Your task to perform on an android device: toggle notifications settings in the gmail app Image 0: 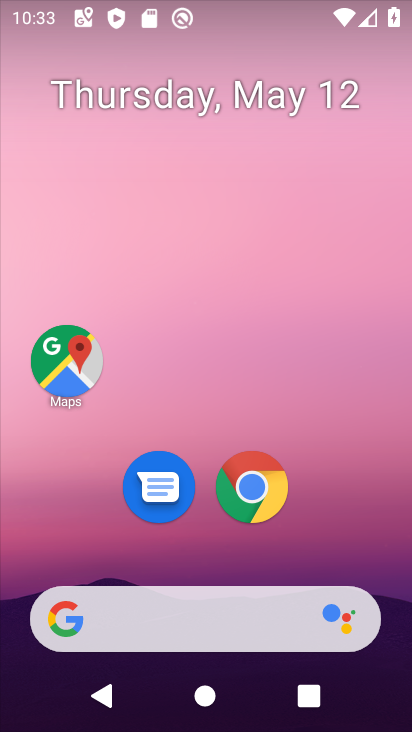
Step 0: press home button
Your task to perform on an android device: toggle notifications settings in the gmail app Image 1: 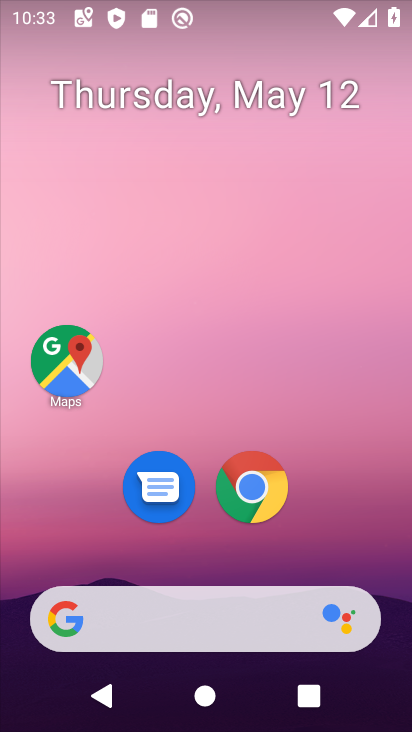
Step 1: drag from (15, 588) to (256, 112)
Your task to perform on an android device: toggle notifications settings in the gmail app Image 2: 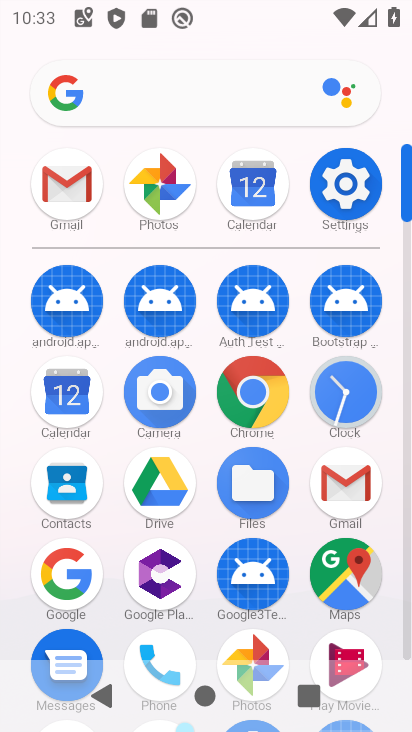
Step 2: click (76, 176)
Your task to perform on an android device: toggle notifications settings in the gmail app Image 3: 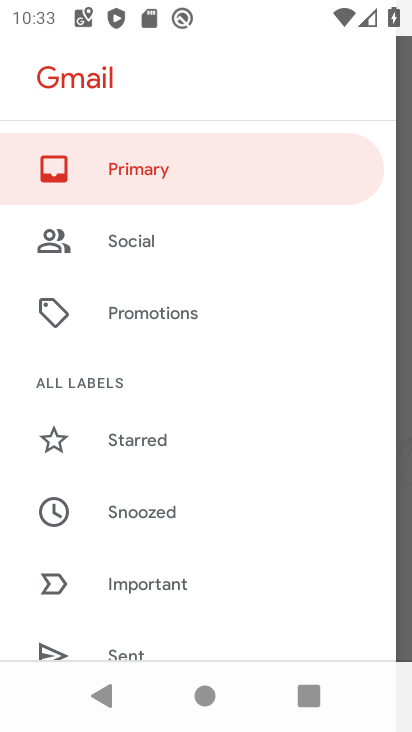
Step 3: drag from (87, 615) to (269, 170)
Your task to perform on an android device: toggle notifications settings in the gmail app Image 4: 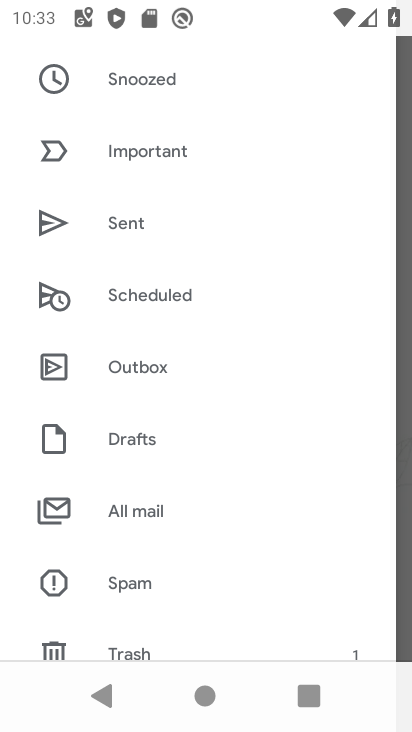
Step 4: drag from (85, 583) to (283, 153)
Your task to perform on an android device: toggle notifications settings in the gmail app Image 5: 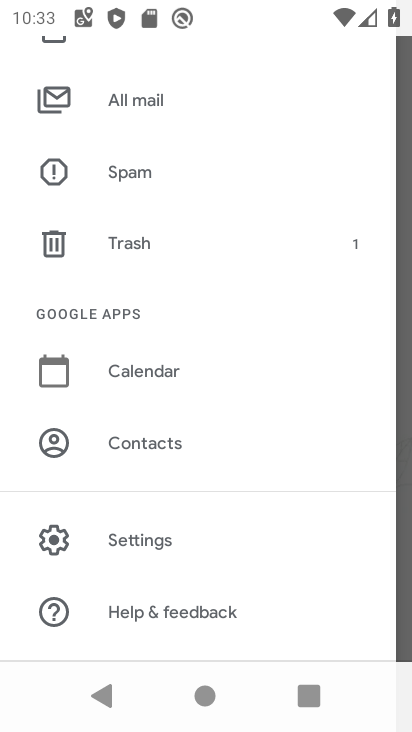
Step 5: click (147, 528)
Your task to perform on an android device: toggle notifications settings in the gmail app Image 6: 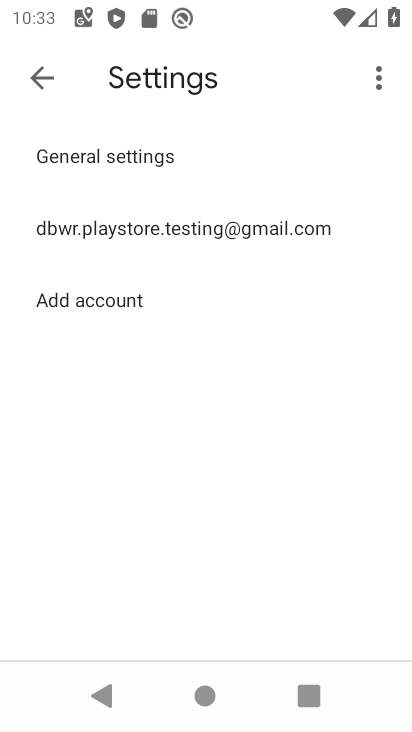
Step 6: click (177, 241)
Your task to perform on an android device: toggle notifications settings in the gmail app Image 7: 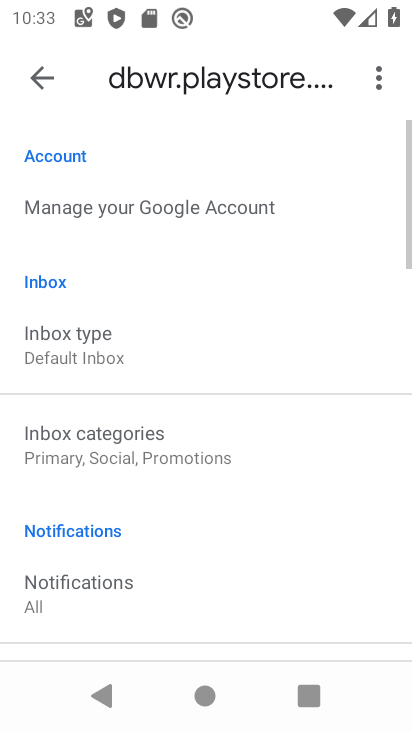
Step 7: click (106, 592)
Your task to perform on an android device: toggle notifications settings in the gmail app Image 8: 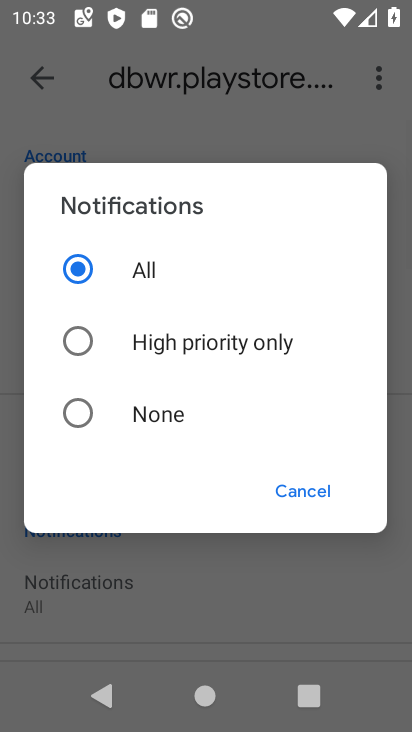
Step 8: press back button
Your task to perform on an android device: toggle notifications settings in the gmail app Image 9: 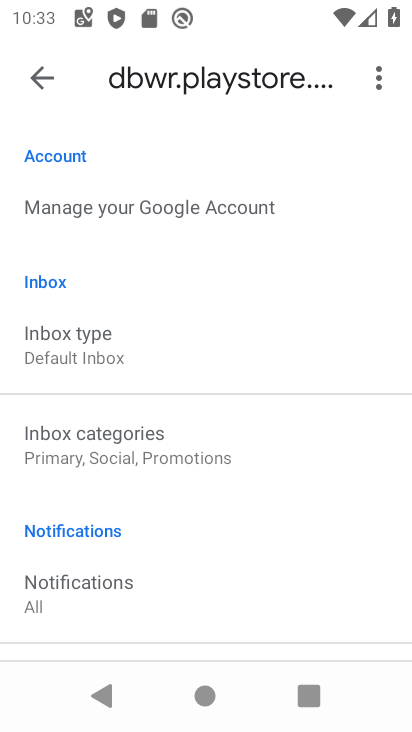
Step 9: drag from (56, 539) to (288, 202)
Your task to perform on an android device: toggle notifications settings in the gmail app Image 10: 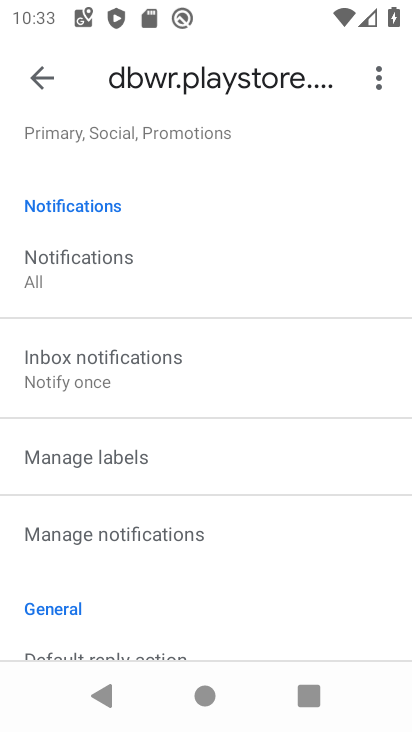
Step 10: click (145, 546)
Your task to perform on an android device: toggle notifications settings in the gmail app Image 11: 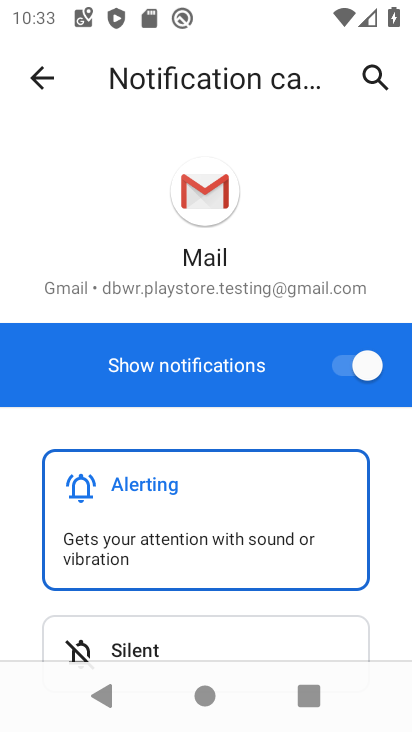
Step 11: click (368, 376)
Your task to perform on an android device: toggle notifications settings in the gmail app Image 12: 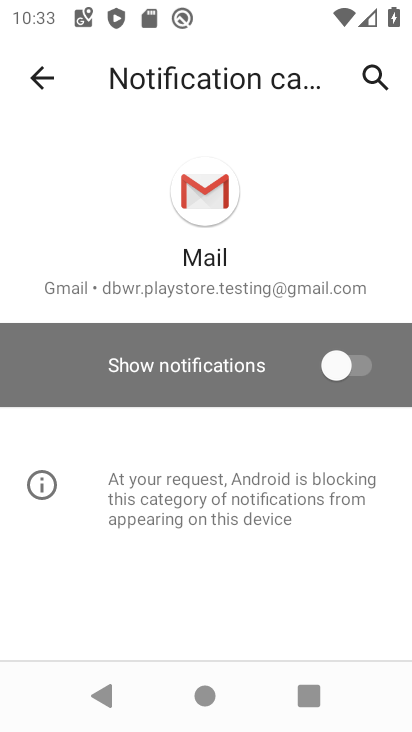
Step 12: task complete